Your task to perform on an android device: toggle wifi Image 0: 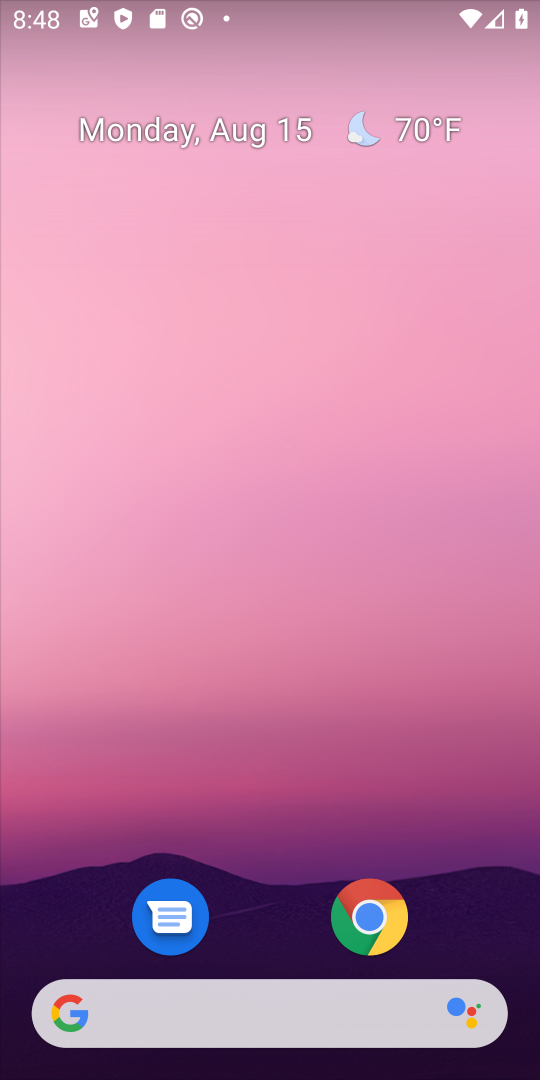
Step 0: drag from (260, 756) to (327, 0)
Your task to perform on an android device: toggle wifi Image 1: 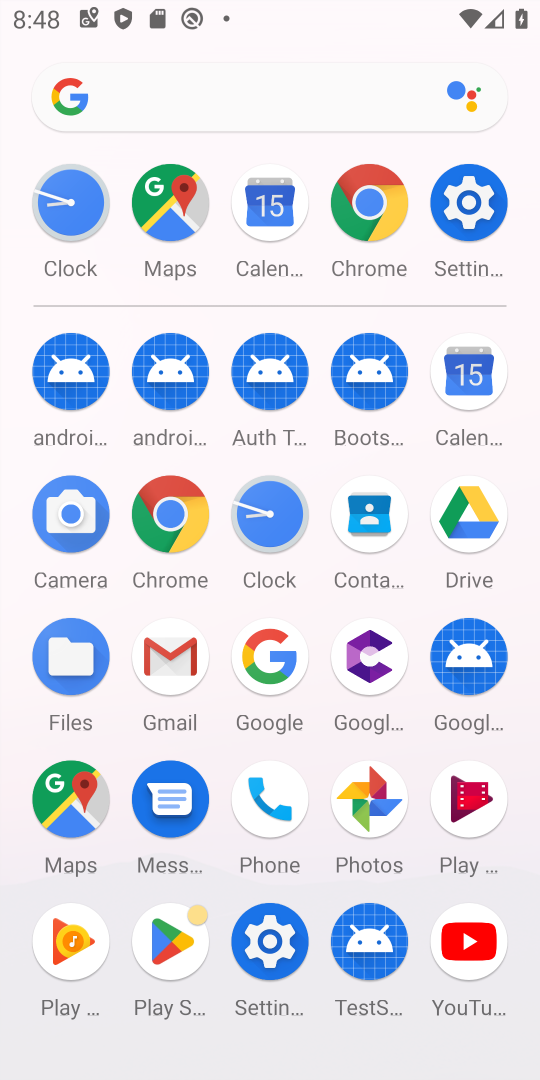
Step 1: click (454, 192)
Your task to perform on an android device: toggle wifi Image 2: 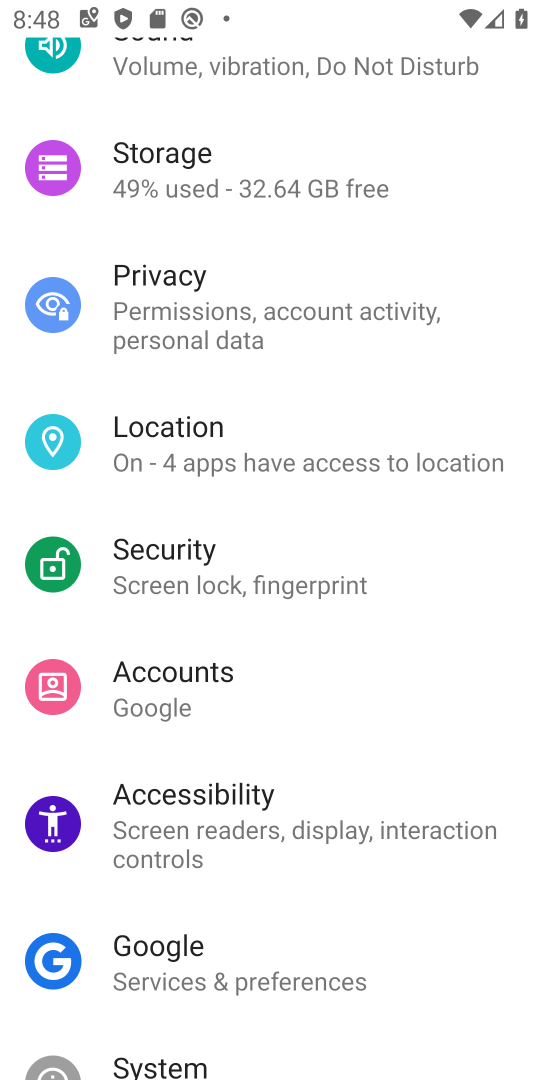
Step 2: drag from (301, 286) to (312, 857)
Your task to perform on an android device: toggle wifi Image 3: 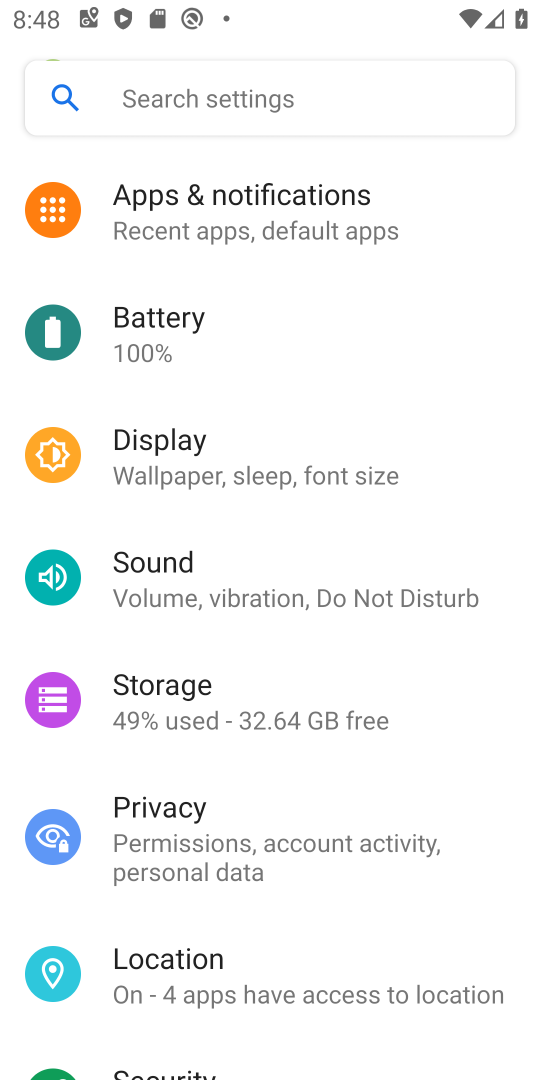
Step 3: drag from (316, 462) to (334, 859)
Your task to perform on an android device: toggle wifi Image 4: 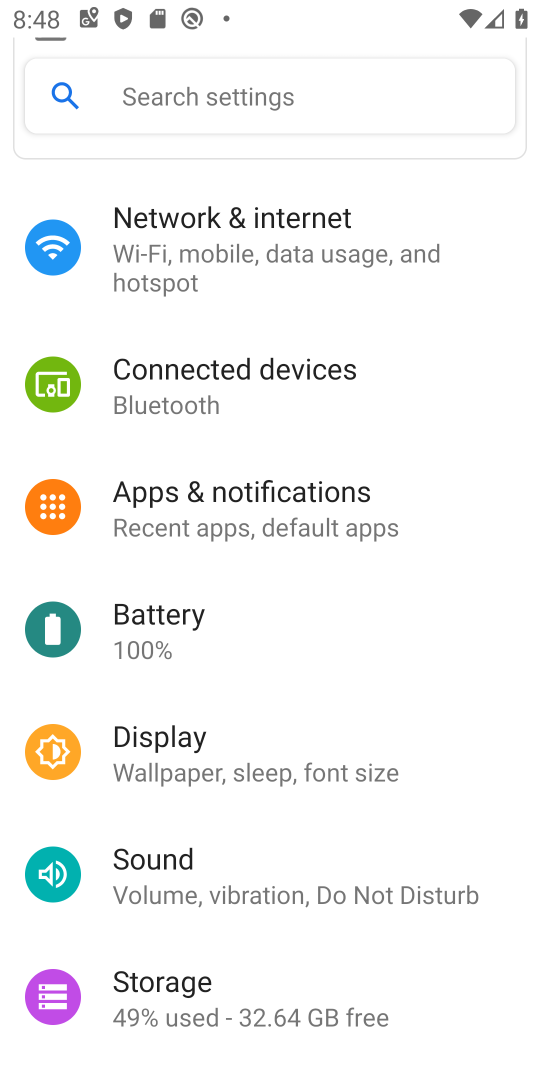
Step 4: click (316, 243)
Your task to perform on an android device: toggle wifi Image 5: 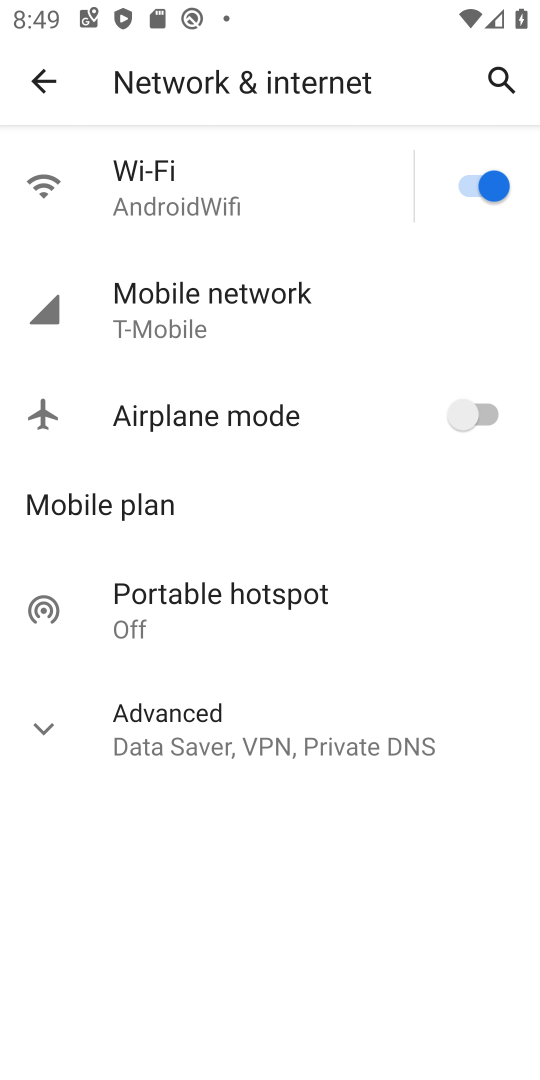
Step 5: click (482, 178)
Your task to perform on an android device: toggle wifi Image 6: 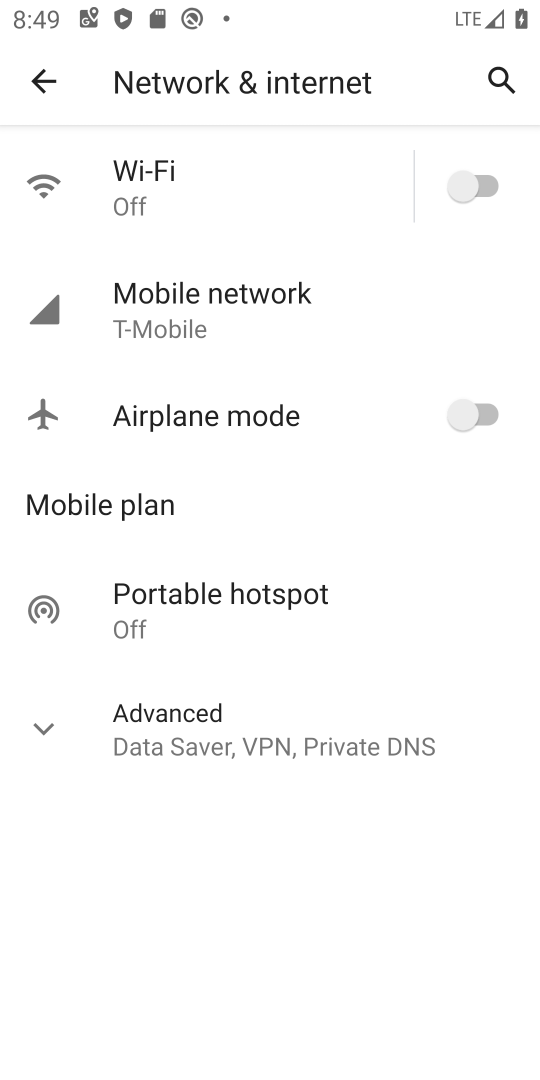
Step 6: task complete